Your task to perform on an android device: What's the weather today? Image 0: 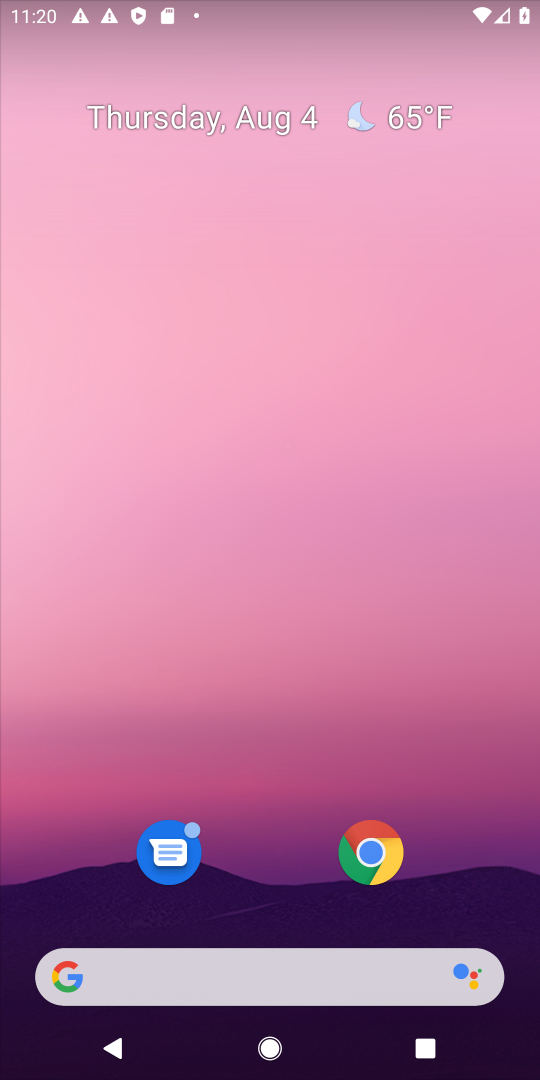
Step 0: drag from (536, 1054) to (362, 333)
Your task to perform on an android device: What's the weather today? Image 1: 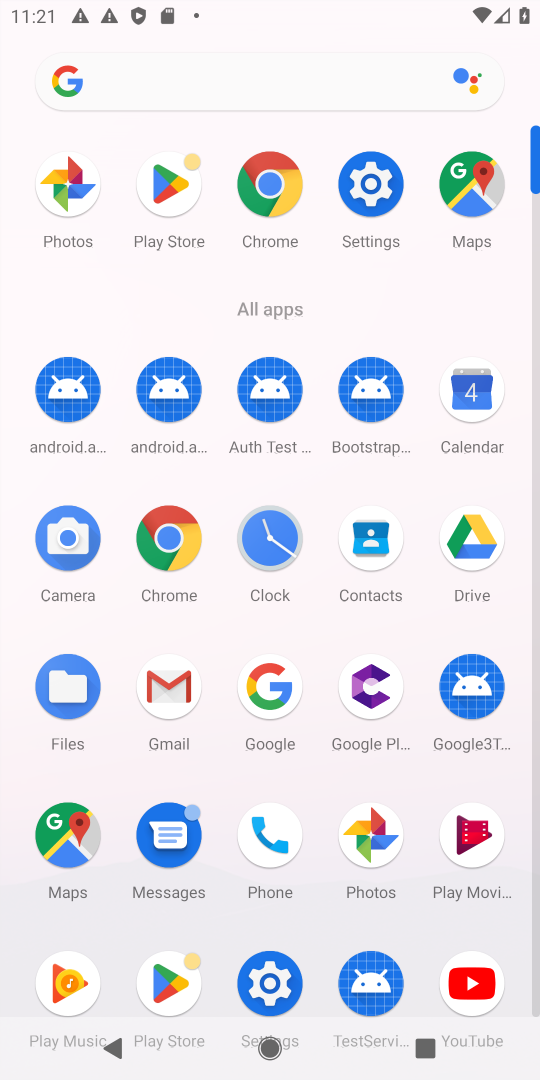
Step 1: click (240, 694)
Your task to perform on an android device: What's the weather today? Image 2: 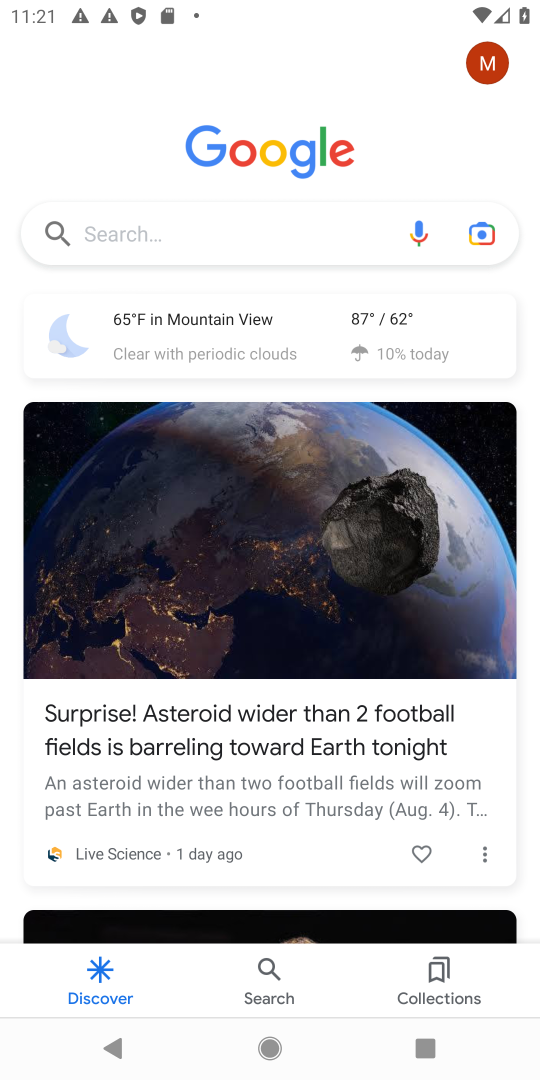
Step 2: click (355, 334)
Your task to perform on an android device: What's the weather today? Image 3: 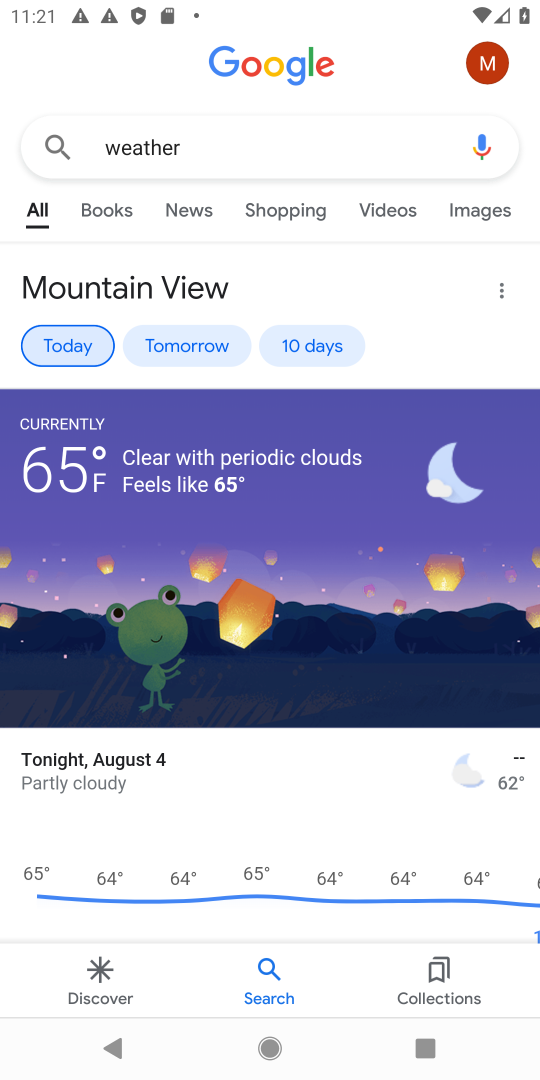
Step 3: click (70, 346)
Your task to perform on an android device: What's the weather today? Image 4: 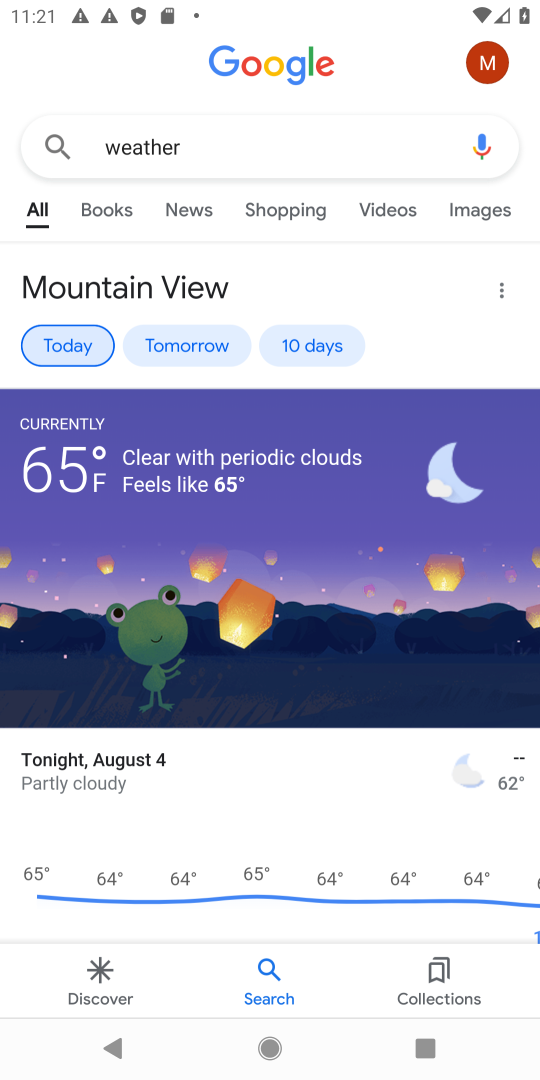
Step 4: task complete